Your task to perform on an android device: change keyboard looks Image 0: 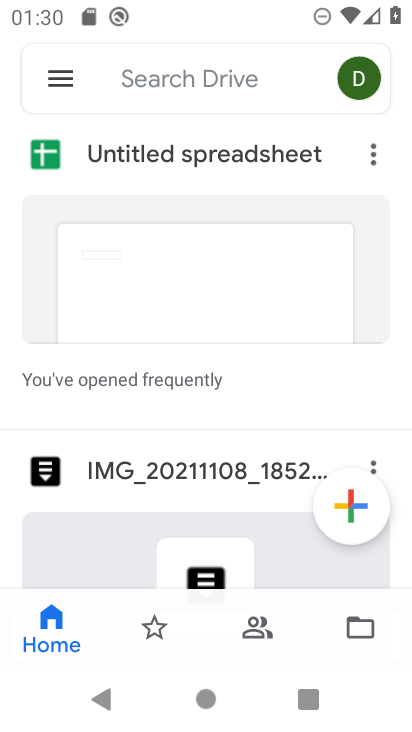
Step 0: press home button
Your task to perform on an android device: change keyboard looks Image 1: 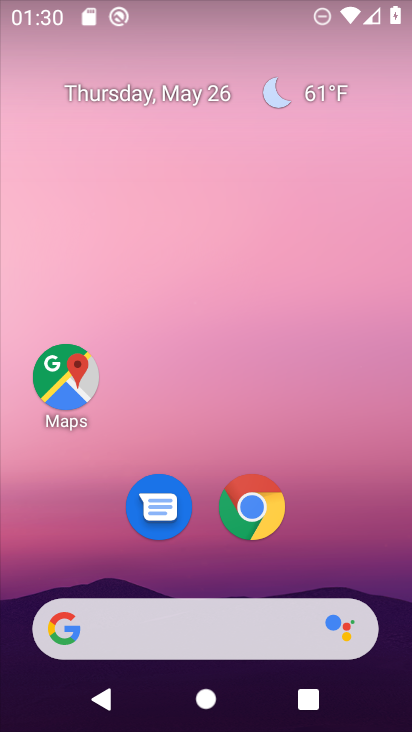
Step 1: drag from (345, 558) to (266, 1)
Your task to perform on an android device: change keyboard looks Image 2: 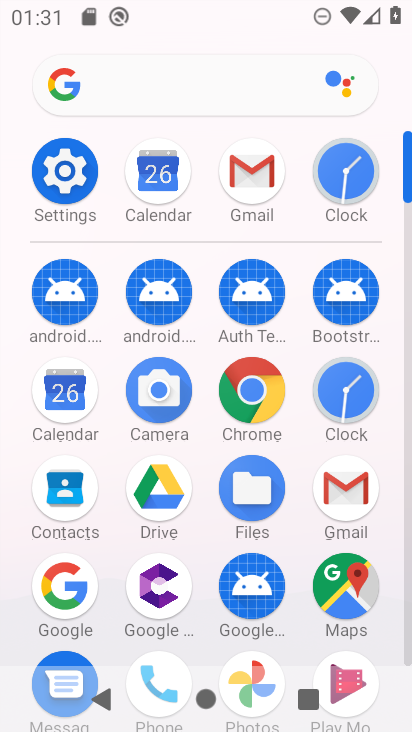
Step 2: click (80, 203)
Your task to perform on an android device: change keyboard looks Image 3: 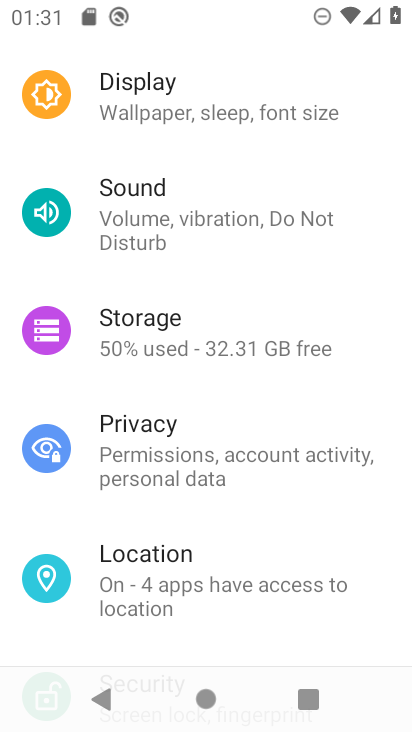
Step 3: drag from (190, 651) to (196, 107)
Your task to perform on an android device: change keyboard looks Image 4: 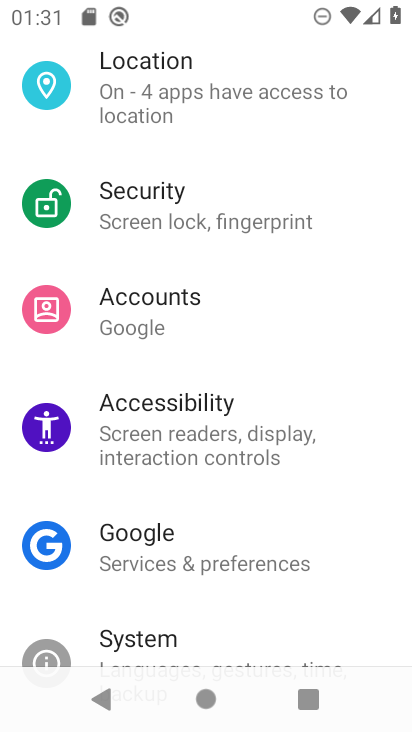
Step 4: drag from (211, 599) to (228, 208)
Your task to perform on an android device: change keyboard looks Image 5: 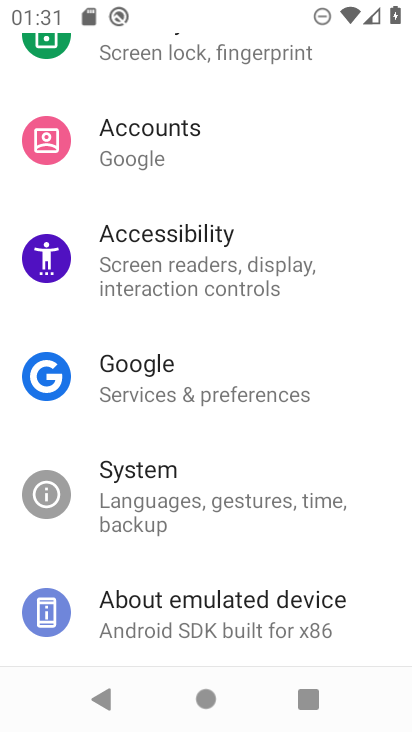
Step 5: click (149, 522)
Your task to perform on an android device: change keyboard looks Image 6: 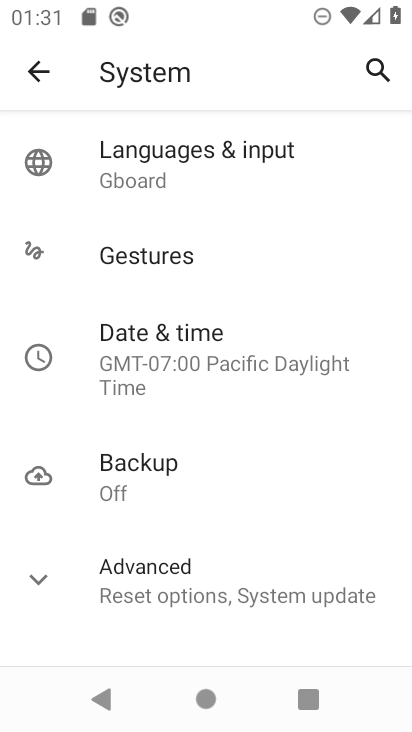
Step 6: click (174, 154)
Your task to perform on an android device: change keyboard looks Image 7: 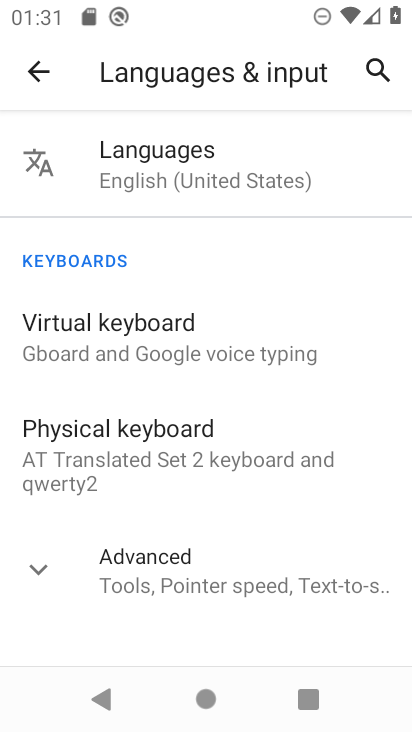
Step 7: click (166, 324)
Your task to perform on an android device: change keyboard looks Image 8: 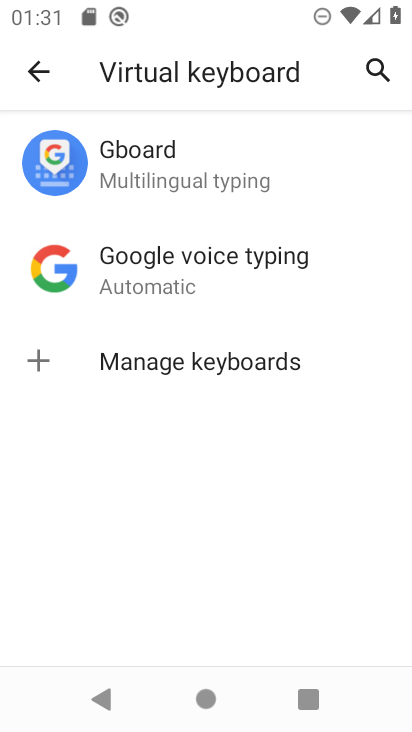
Step 8: click (186, 200)
Your task to perform on an android device: change keyboard looks Image 9: 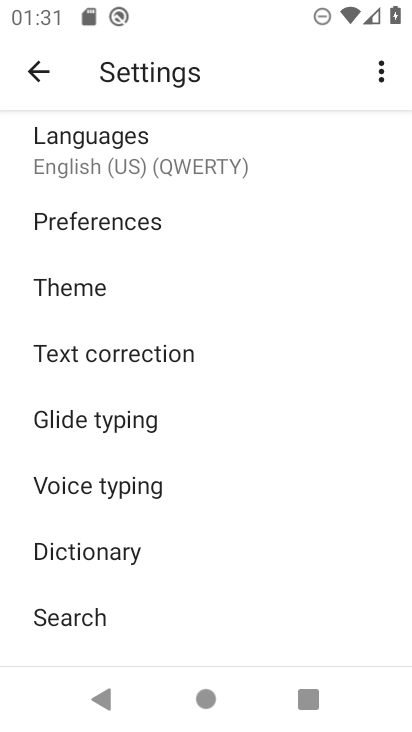
Step 9: click (177, 223)
Your task to perform on an android device: change keyboard looks Image 10: 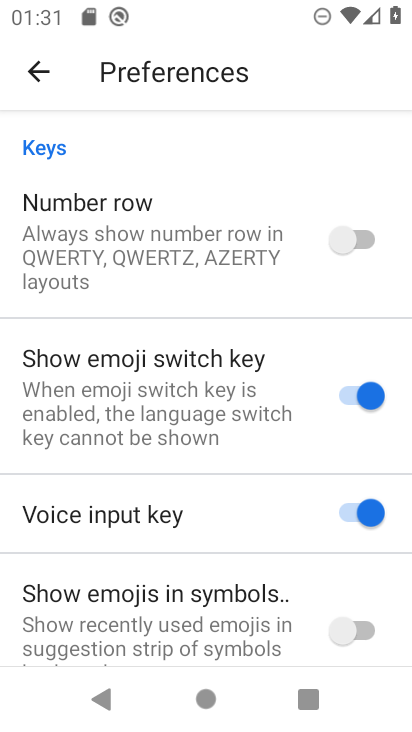
Step 10: click (47, 73)
Your task to perform on an android device: change keyboard looks Image 11: 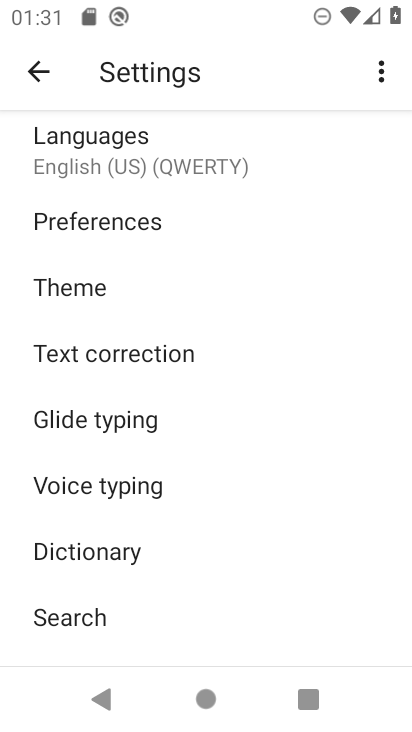
Step 11: click (117, 292)
Your task to perform on an android device: change keyboard looks Image 12: 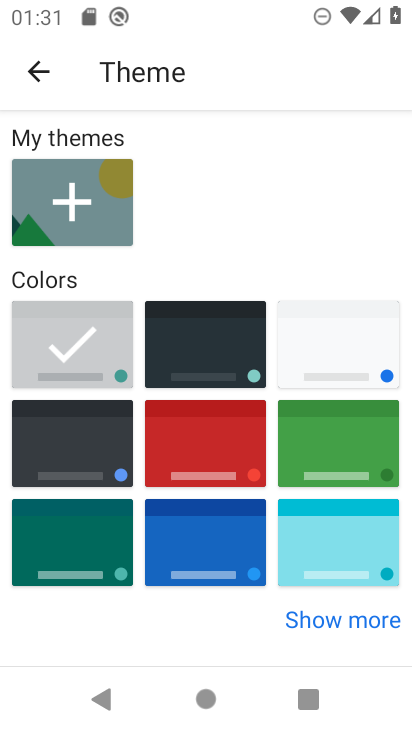
Step 12: click (219, 320)
Your task to perform on an android device: change keyboard looks Image 13: 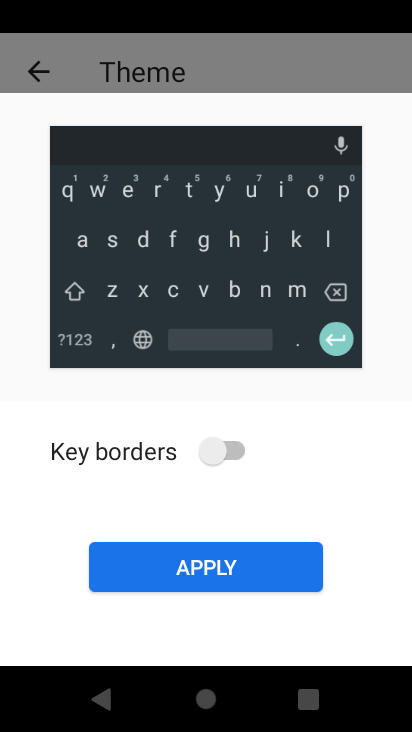
Step 13: task complete